Your task to perform on an android device: Open eBay Image 0: 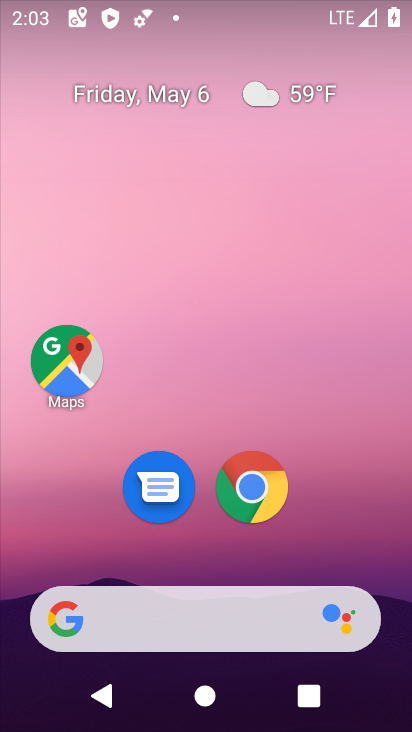
Step 0: click (257, 524)
Your task to perform on an android device: Open eBay Image 1: 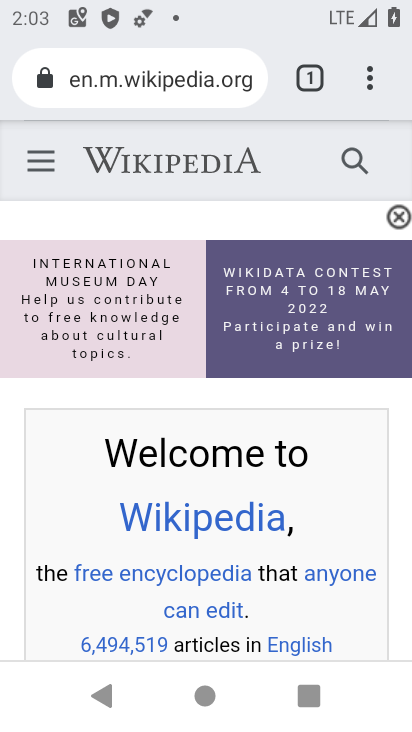
Step 1: click (237, 80)
Your task to perform on an android device: Open eBay Image 2: 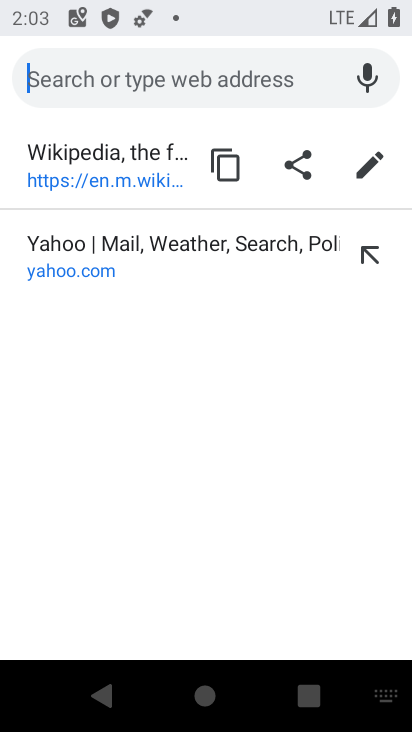
Step 2: type "ebay"
Your task to perform on an android device: Open eBay Image 3: 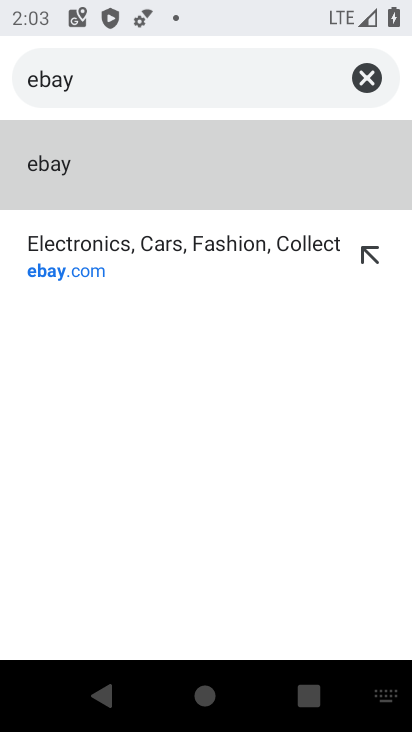
Step 3: click (126, 266)
Your task to perform on an android device: Open eBay Image 4: 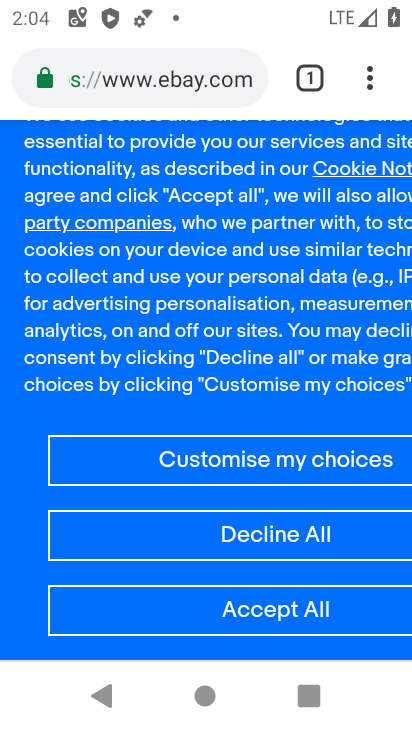
Step 4: task complete